Your task to perform on an android device: open sync settings in chrome Image 0: 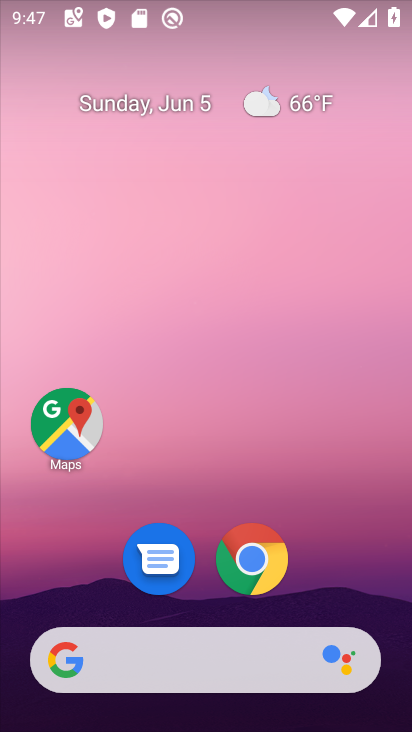
Step 0: click (252, 557)
Your task to perform on an android device: open sync settings in chrome Image 1: 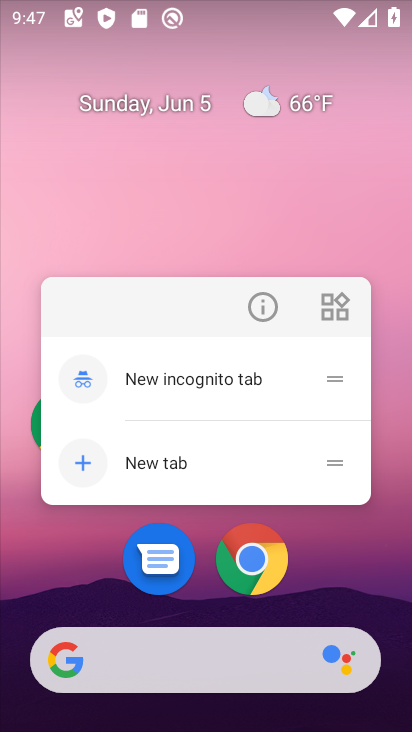
Step 1: click (252, 556)
Your task to perform on an android device: open sync settings in chrome Image 2: 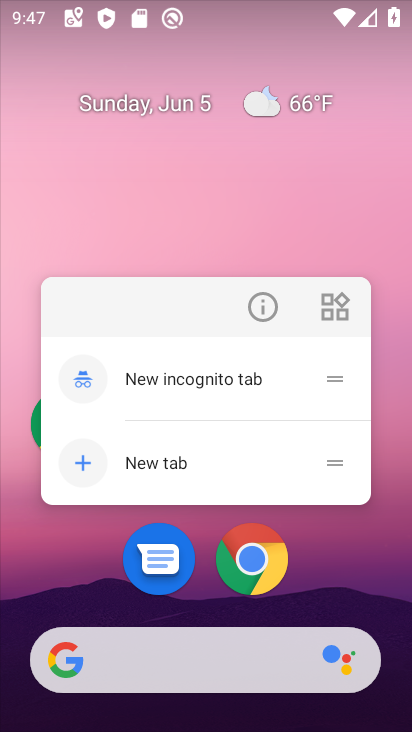
Step 2: click (252, 556)
Your task to perform on an android device: open sync settings in chrome Image 3: 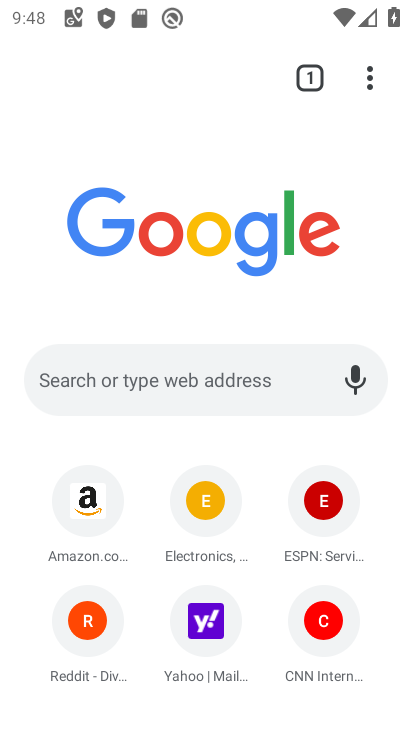
Step 3: click (369, 77)
Your task to perform on an android device: open sync settings in chrome Image 4: 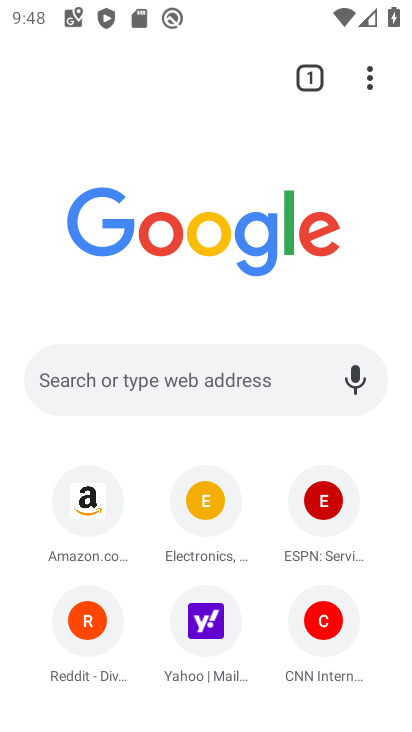
Step 4: click (365, 76)
Your task to perform on an android device: open sync settings in chrome Image 5: 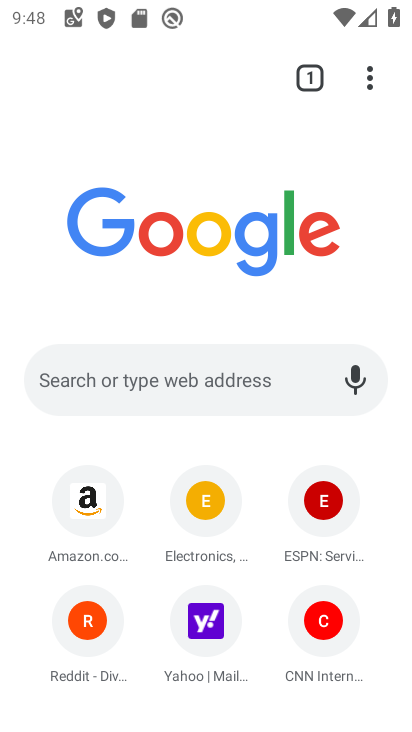
Step 5: click (372, 74)
Your task to perform on an android device: open sync settings in chrome Image 6: 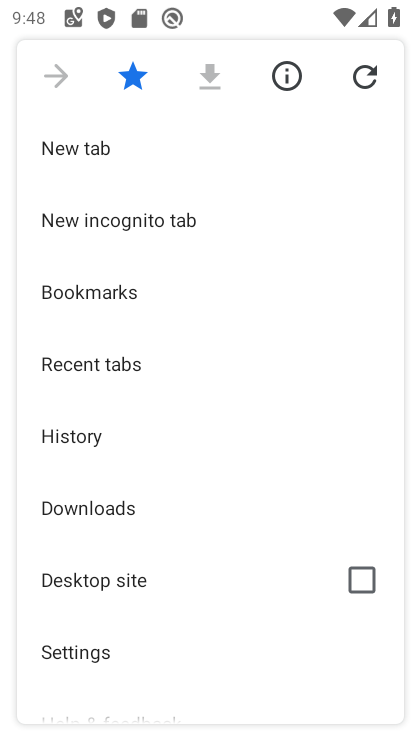
Step 6: click (142, 643)
Your task to perform on an android device: open sync settings in chrome Image 7: 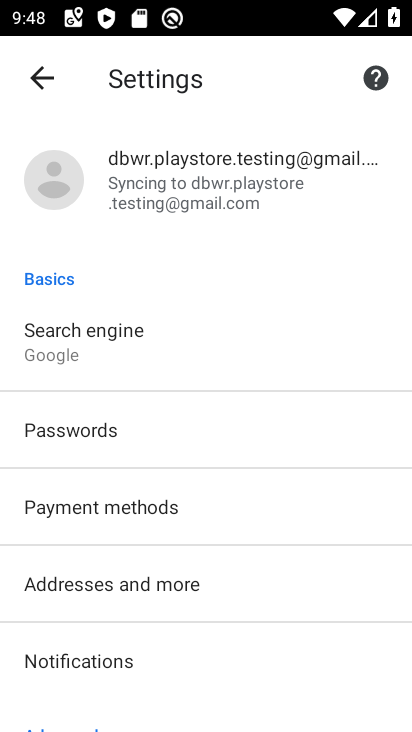
Step 7: click (218, 180)
Your task to perform on an android device: open sync settings in chrome Image 8: 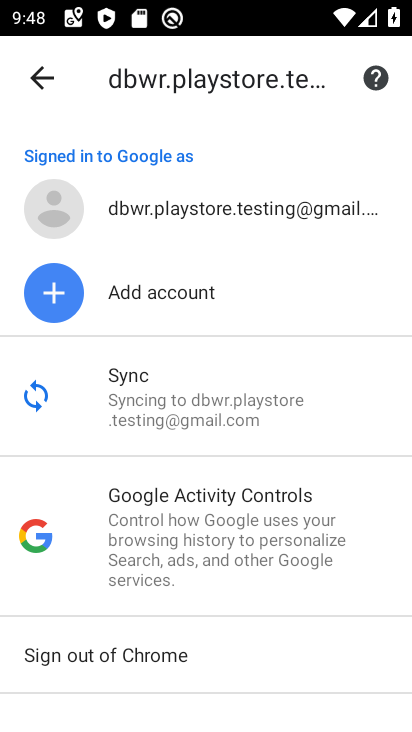
Step 8: click (168, 371)
Your task to perform on an android device: open sync settings in chrome Image 9: 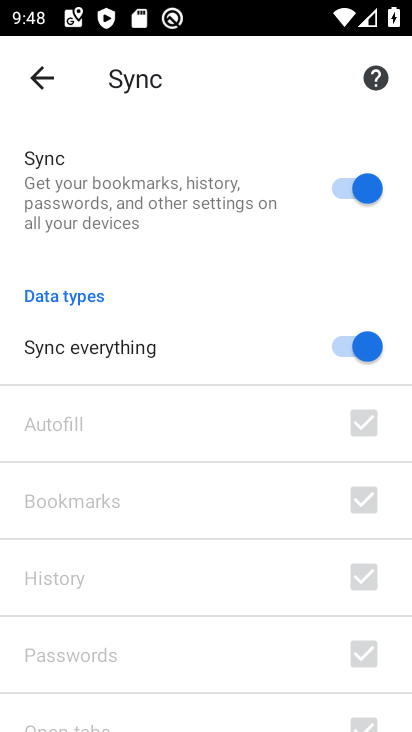
Step 9: task complete